Your task to perform on an android device: Go to location settings Image 0: 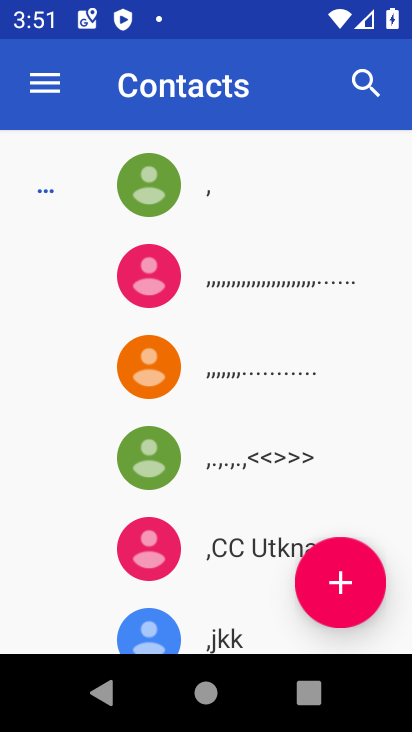
Step 0: press home button
Your task to perform on an android device: Go to location settings Image 1: 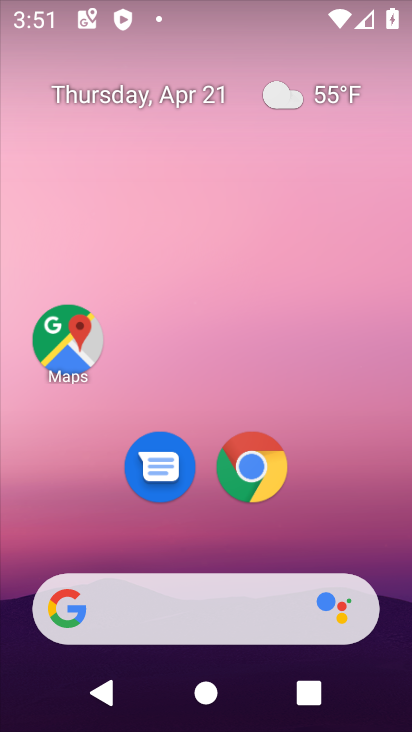
Step 1: drag from (204, 657) to (253, 215)
Your task to perform on an android device: Go to location settings Image 2: 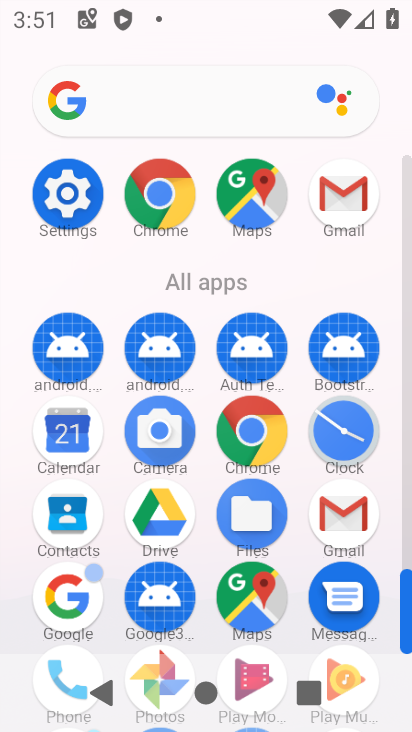
Step 2: drag from (118, 617) to (211, 280)
Your task to perform on an android device: Go to location settings Image 3: 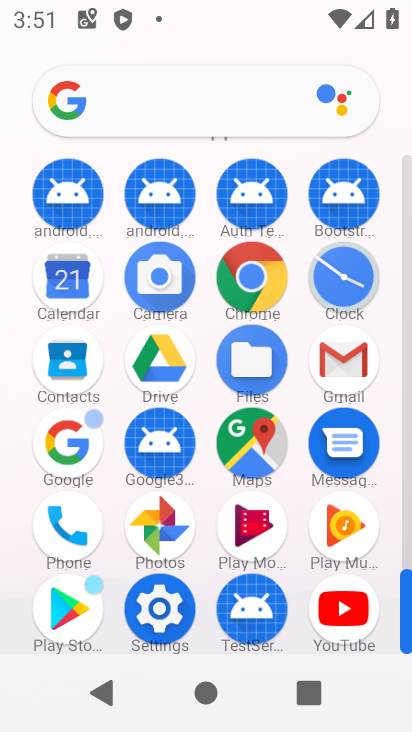
Step 3: click (161, 588)
Your task to perform on an android device: Go to location settings Image 4: 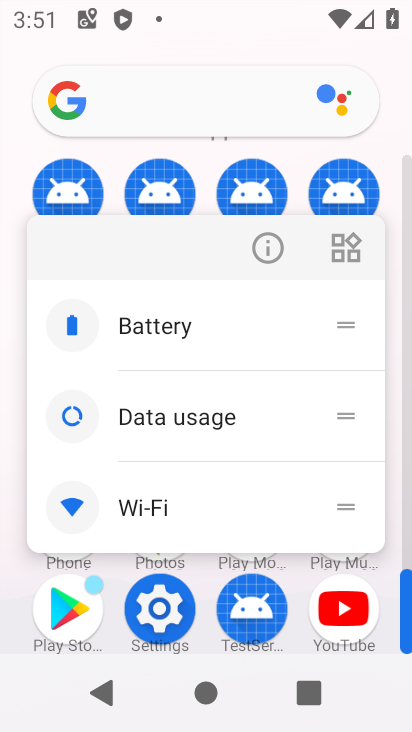
Step 4: click (161, 588)
Your task to perform on an android device: Go to location settings Image 5: 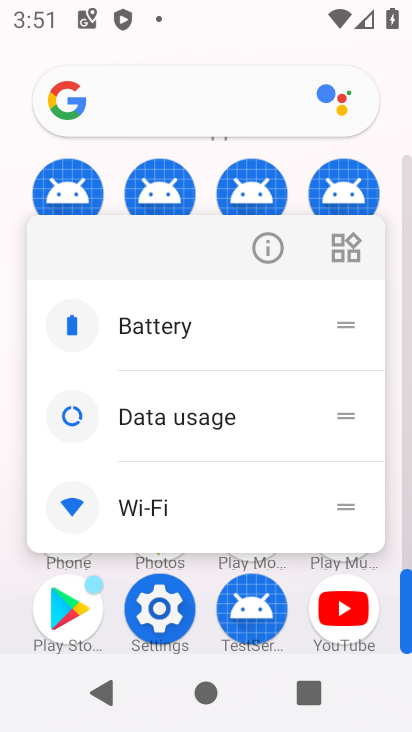
Step 5: click (161, 588)
Your task to perform on an android device: Go to location settings Image 6: 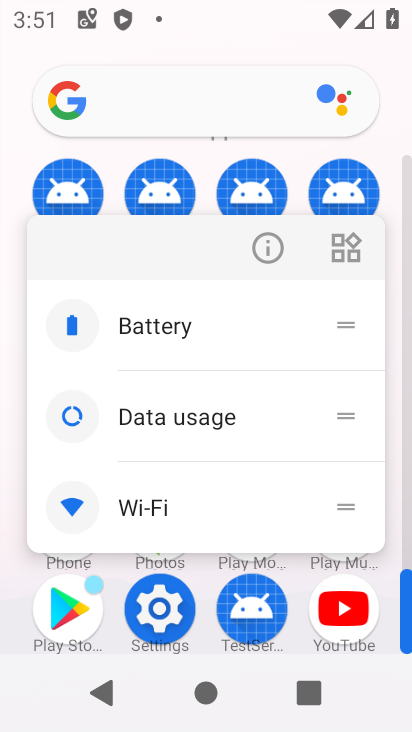
Step 6: click (160, 617)
Your task to perform on an android device: Go to location settings Image 7: 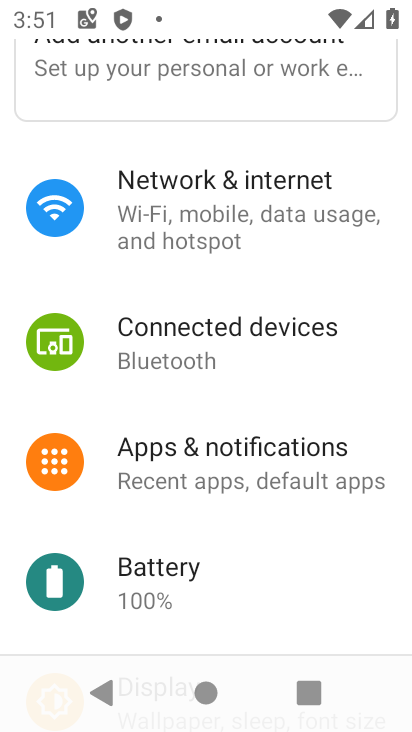
Step 7: drag from (225, 539) to (242, 214)
Your task to perform on an android device: Go to location settings Image 8: 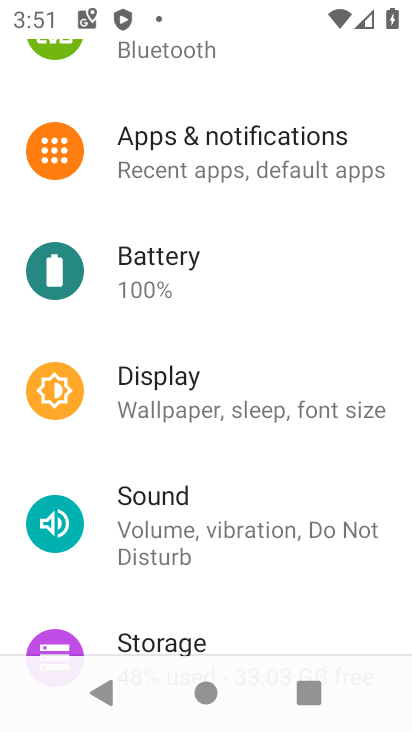
Step 8: drag from (230, 543) to (306, 97)
Your task to perform on an android device: Go to location settings Image 9: 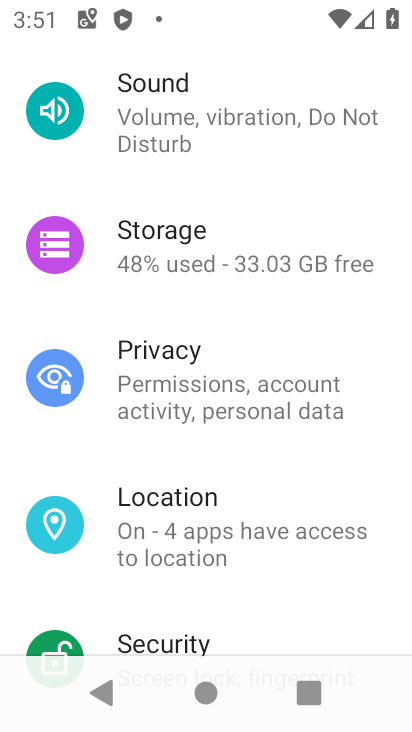
Step 9: click (219, 549)
Your task to perform on an android device: Go to location settings Image 10: 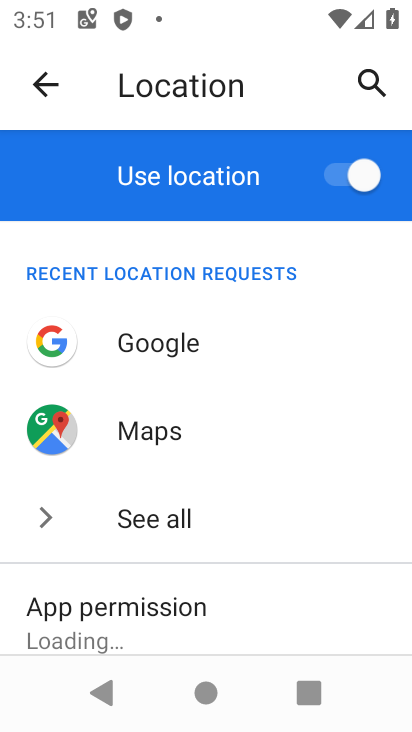
Step 10: drag from (224, 427) to (265, 275)
Your task to perform on an android device: Go to location settings Image 11: 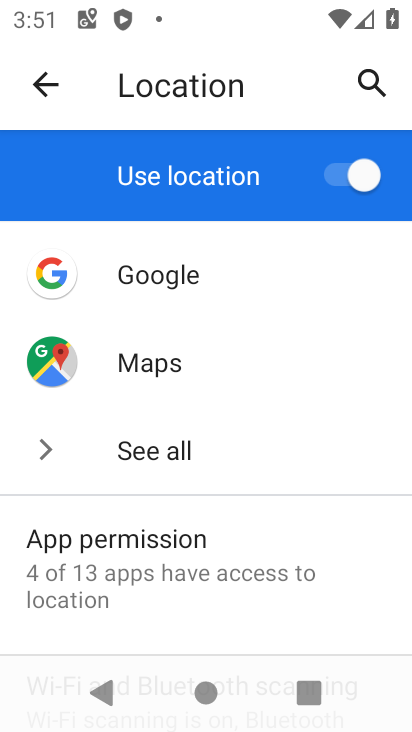
Step 11: click (403, 343)
Your task to perform on an android device: Go to location settings Image 12: 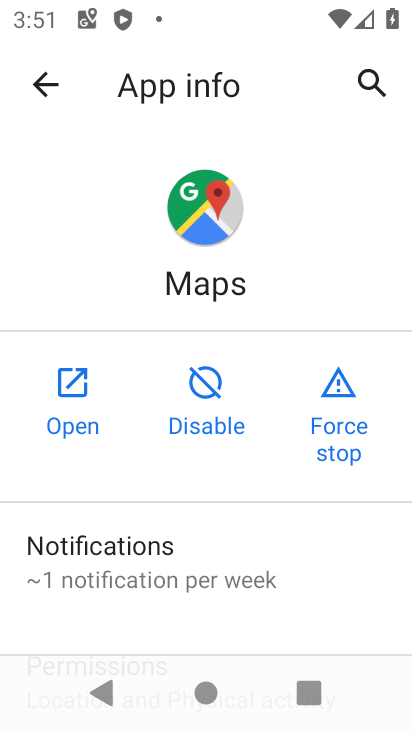
Step 12: click (44, 82)
Your task to perform on an android device: Go to location settings Image 13: 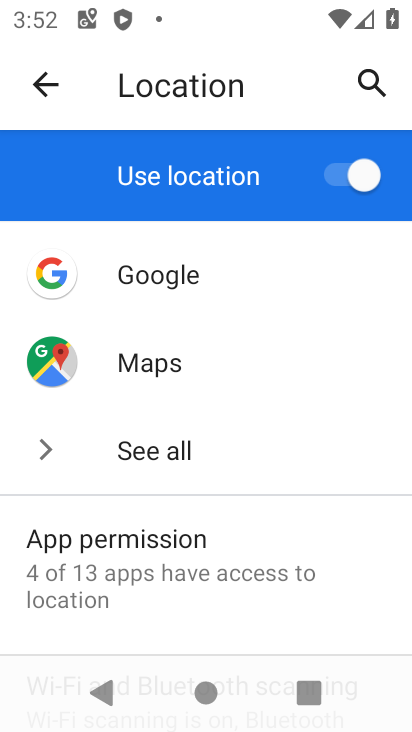
Step 13: task complete